Your task to perform on an android device: stop showing notifications on the lock screen Image 0: 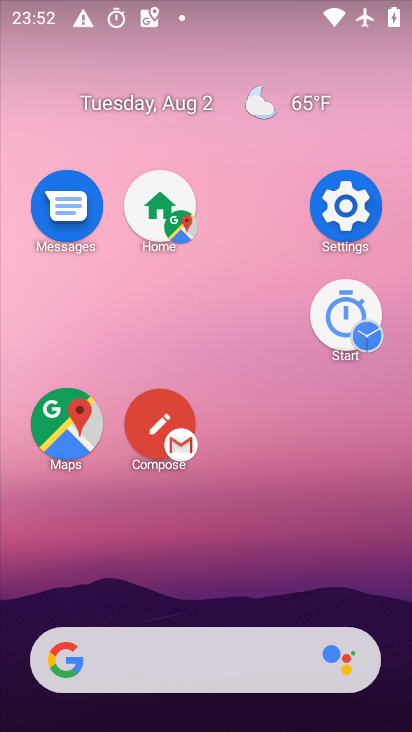
Step 0: drag from (233, 663) to (150, 189)
Your task to perform on an android device: stop showing notifications on the lock screen Image 1: 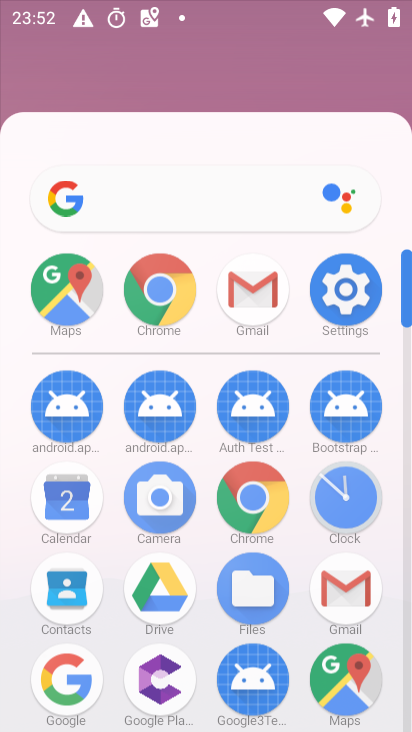
Step 1: drag from (188, 536) to (146, 123)
Your task to perform on an android device: stop showing notifications on the lock screen Image 2: 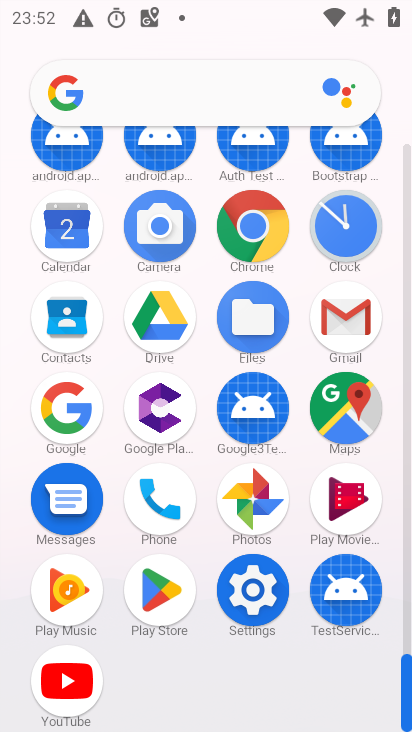
Step 2: click (258, 590)
Your task to perform on an android device: stop showing notifications on the lock screen Image 3: 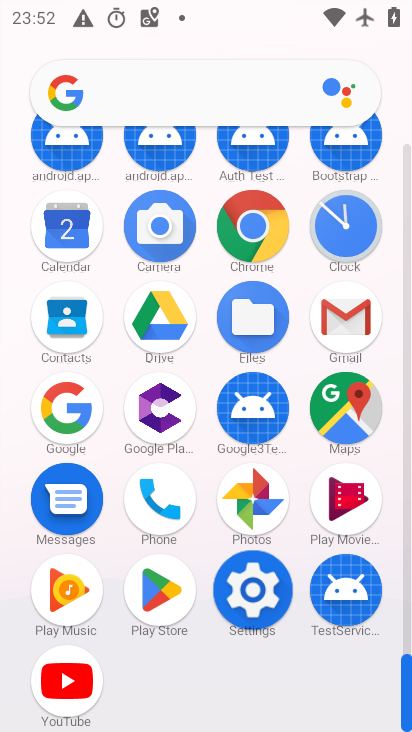
Step 3: click (257, 590)
Your task to perform on an android device: stop showing notifications on the lock screen Image 4: 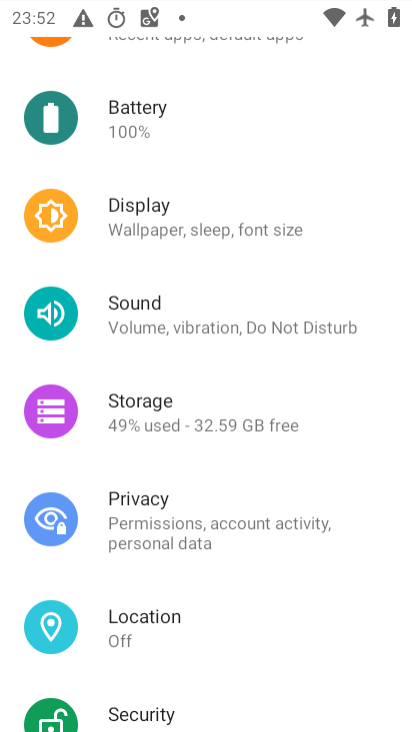
Step 4: click (256, 586)
Your task to perform on an android device: stop showing notifications on the lock screen Image 5: 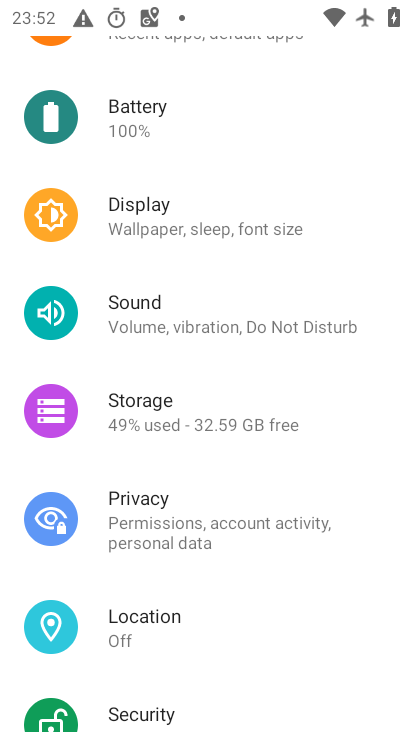
Step 5: click (256, 586)
Your task to perform on an android device: stop showing notifications on the lock screen Image 6: 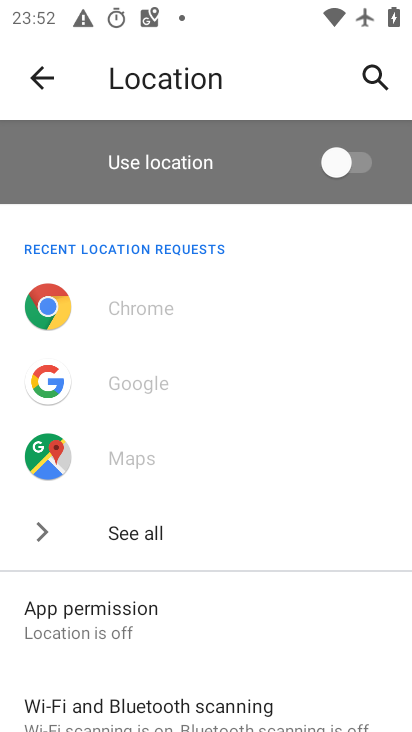
Step 6: click (41, 85)
Your task to perform on an android device: stop showing notifications on the lock screen Image 7: 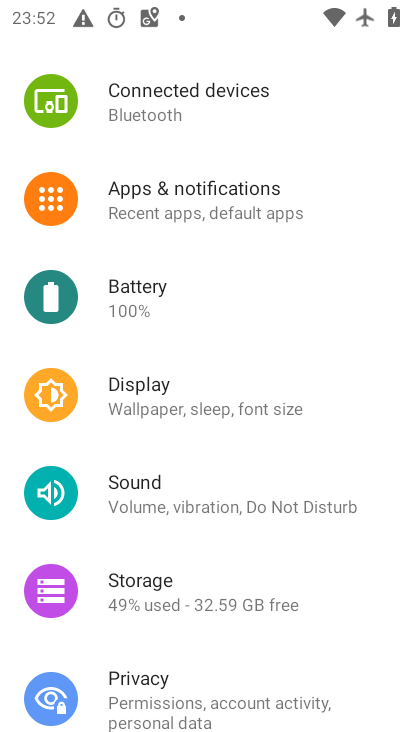
Step 7: click (172, 216)
Your task to perform on an android device: stop showing notifications on the lock screen Image 8: 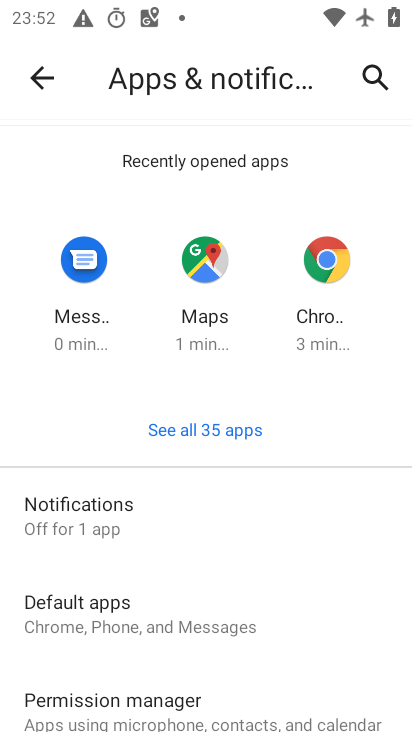
Step 8: drag from (202, 599) to (181, 303)
Your task to perform on an android device: stop showing notifications on the lock screen Image 9: 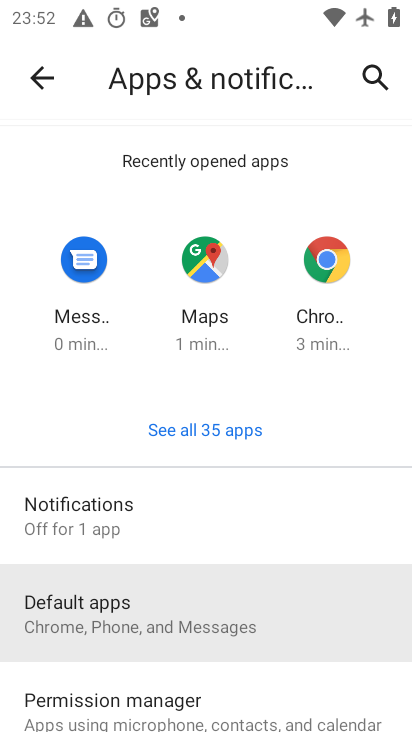
Step 9: drag from (269, 522) to (269, 323)
Your task to perform on an android device: stop showing notifications on the lock screen Image 10: 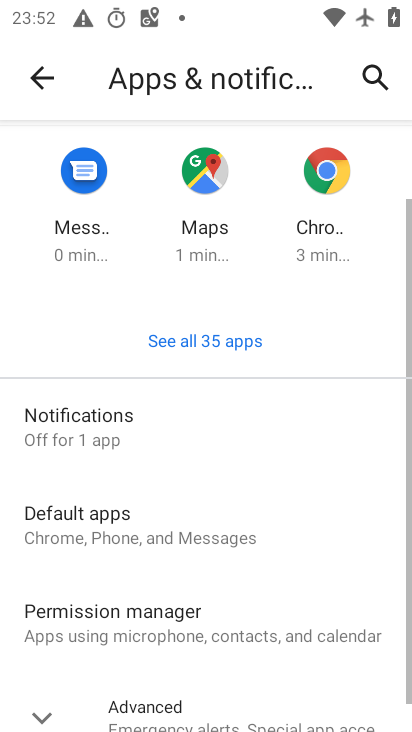
Step 10: drag from (291, 527) to (286, 326)
Your task to perform on an android device: stop showing notifications on the lock screen Image 11: 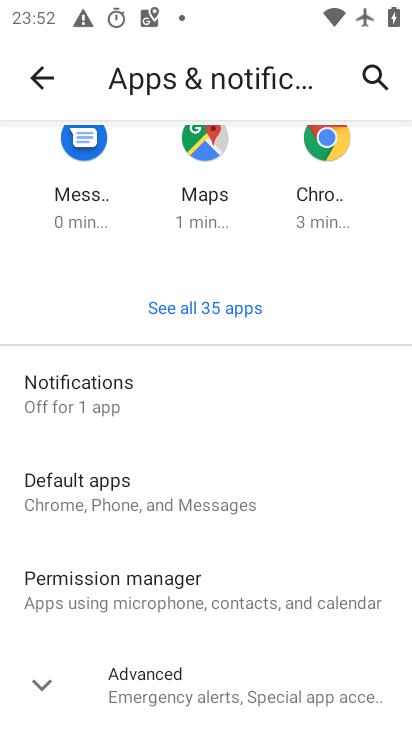
Step 11: drag from (216, 382) to (216, 697)
Your task to perform on an android device: stop showing notifications on the lock screen Image 12: 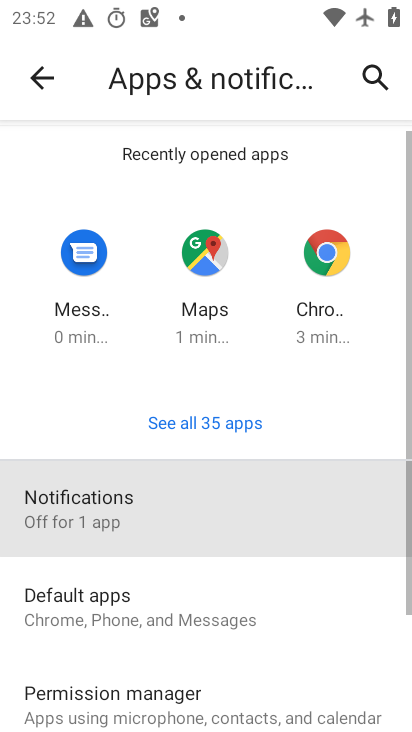
Step 12: drag from (208, 402) to (208, 663)
Your task to perform on an android device: stop showing notifications on the lock screen Image 13: 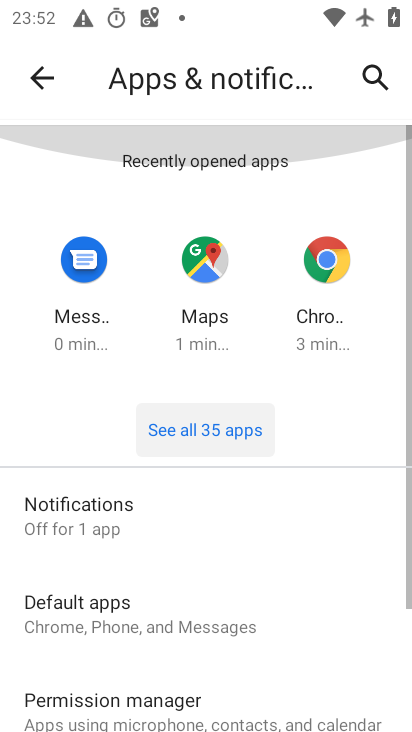
Step 13: drag from (228, 565) to (228, 422)
Your task to perform on an android device: stop showing notifications on the lock screen Image 14: 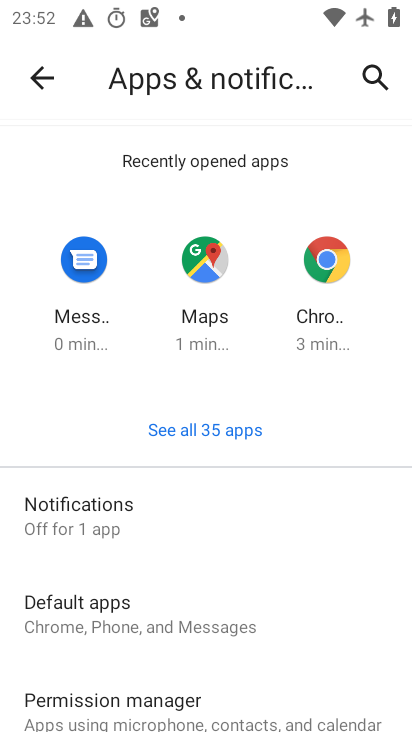
Step 14: drag from (241, 589) to (249, 282)
Your task to perform on an android device: stop showing notifications on the lock screen Image 15: 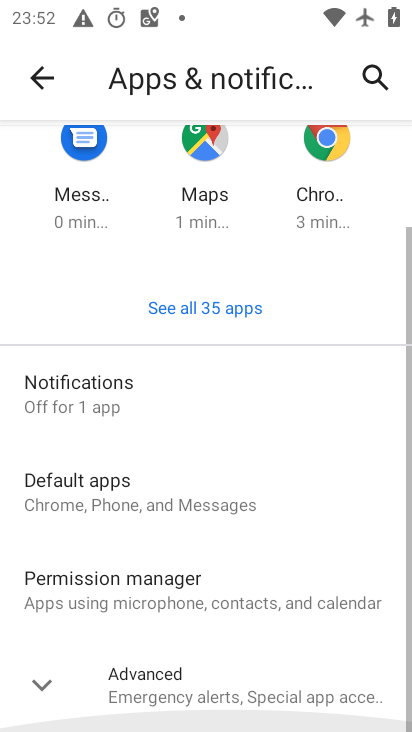
Step 15: drag from (238, 492) to (238, 341)
Your task to perform on an android device: stop showing notifications on the lock screen Image 16: 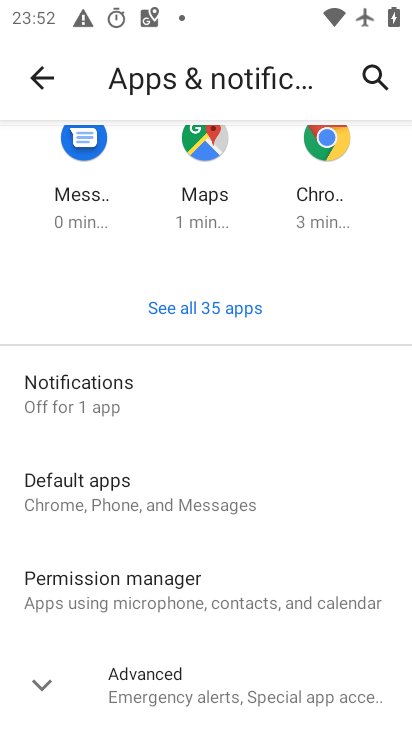
Step 16: drag from (225, 635) to (211, 345)
Your task to perform on an android device: stop showing notifications on the lock screen Image 17: 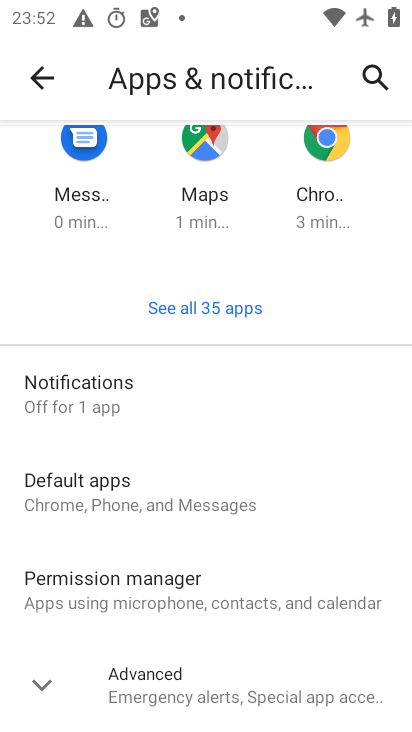
Step 17: click (89, 398)
Your task to perform on an android device: stop showing notifications on the lock screen Image 18: 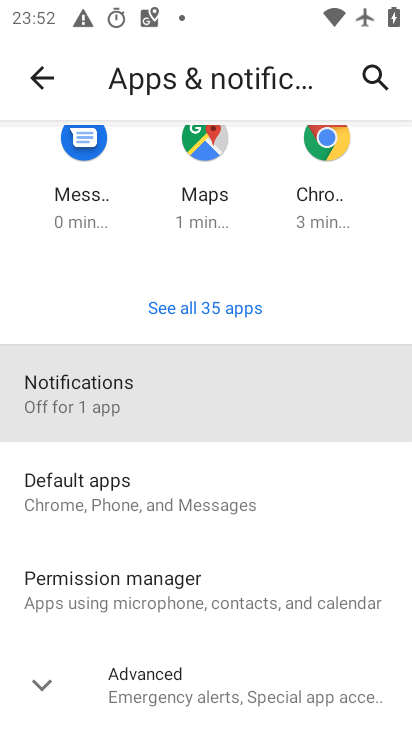
Step 18: click (89, 398)
Your task to perform on an android device: stop showing notifications on the lock screen Image 19: 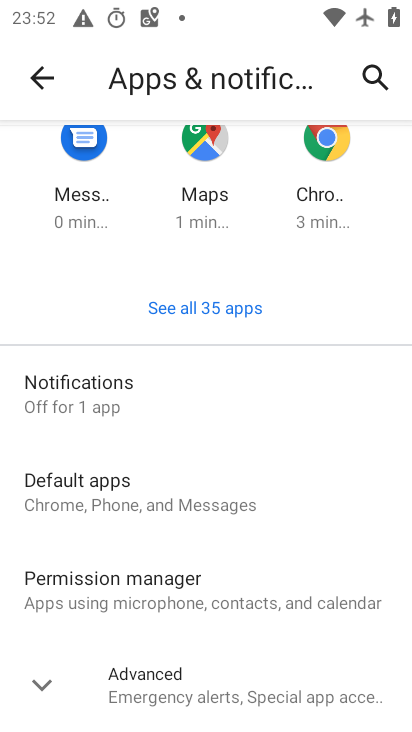
Step 19: click (88, 399)
Your task to perform on an android device: stop showing notifications on the lock screen Image 20: 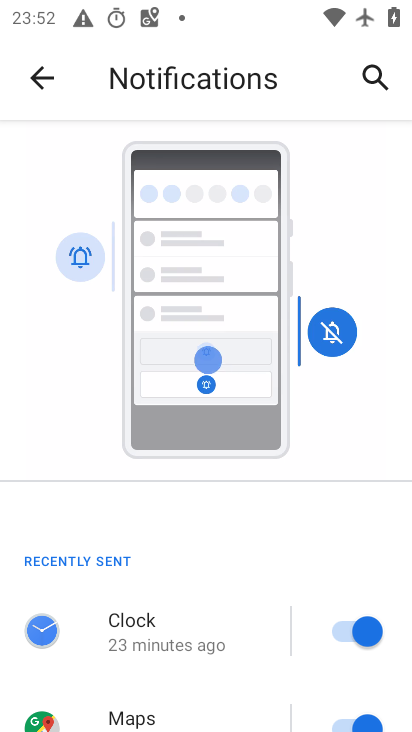
Step 20: drag from (201, 574) to (151, 329)
Your task to perform on an android device: stop showing notifications on the lock screen Image 21: 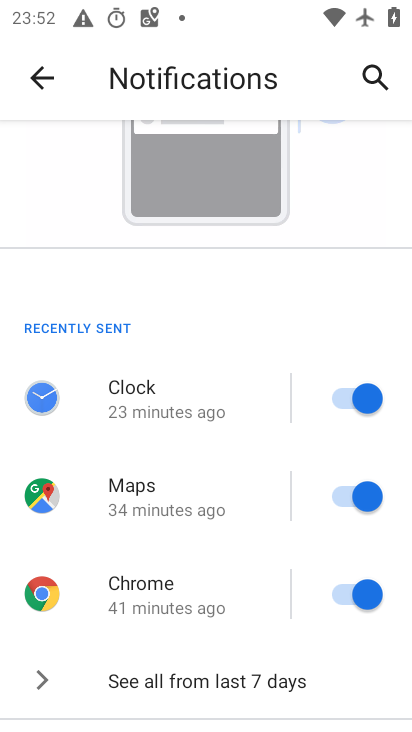
Step 21: click (157, 252)
Your task to perform on an android device: stop showing notifications on the lock screen Image 22: 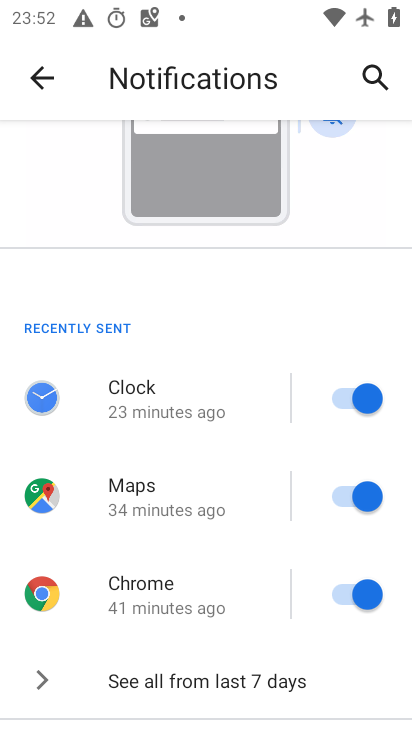
Step 22: drag from (173, 435) to (170, 274)
Your task to perform on an android device: stop showing notifications on the lock screen Image 23: 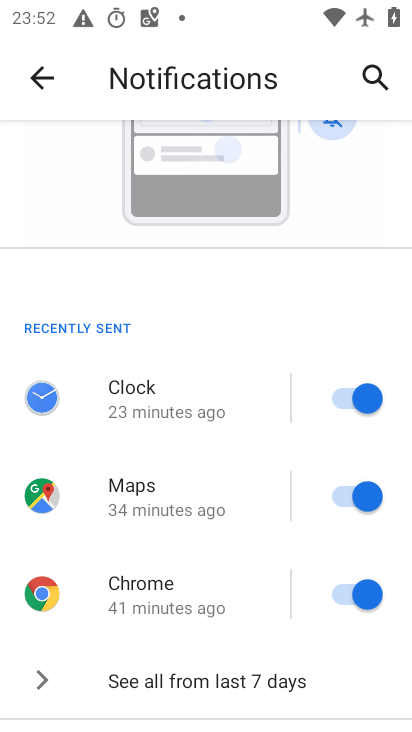
Step 23: drag from (218, 446) to (183, 254)
Your task to perform on an android device: stop showing notifications on the lock screen Image 24: 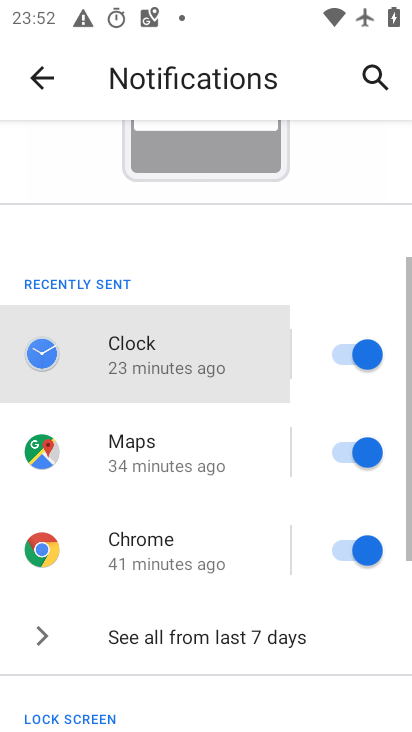
Step 24: click (224, 192)
Your task to perform on an android device: stop showing notifications on the lock screen Image 25: 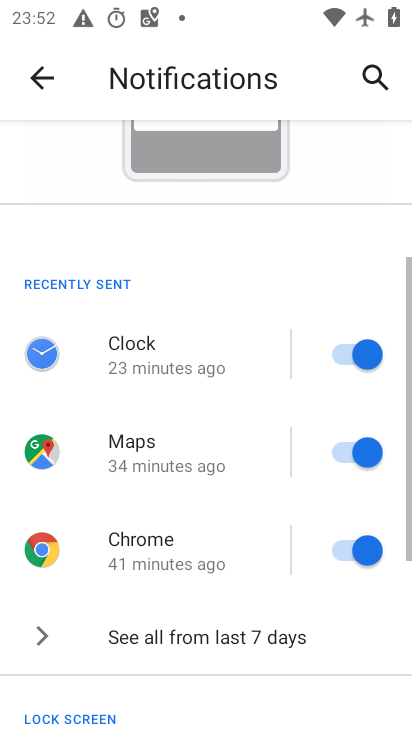
Step 25: drag from (214, 460) to (214, 294)
Your task to perform on an android device: stop showing notifications on the lock screen Image 26: 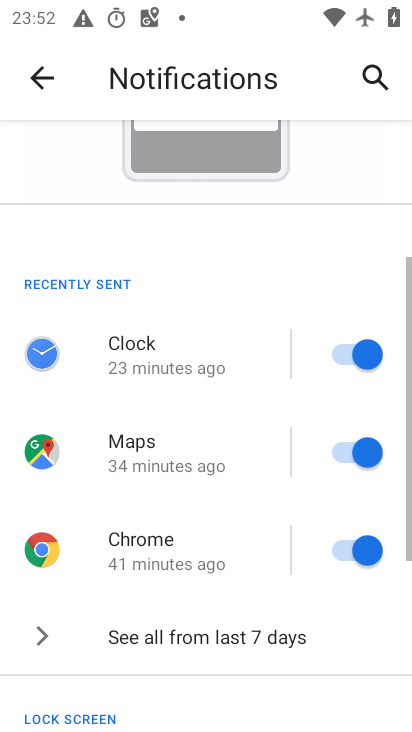
Step 26: drag from (242, 503) to (240, 237)
Your task to perform on an android device: stop showing notifications on the lock screen Image 27: 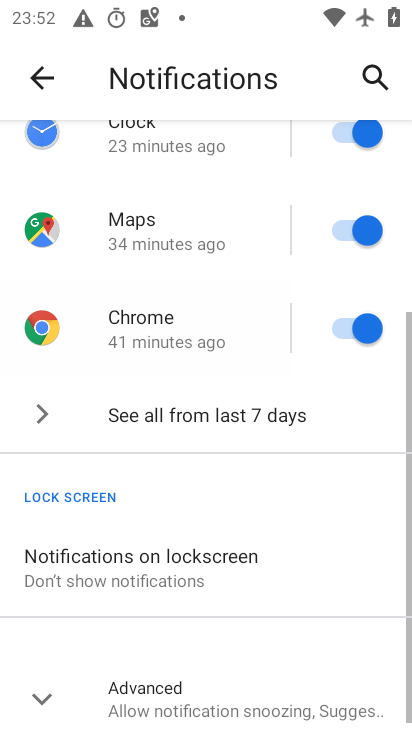
Step 27: drag from (215, 526) to (202, 319)
Your task to perform on an android device: stop showing notifications on the lock screen Image 28: 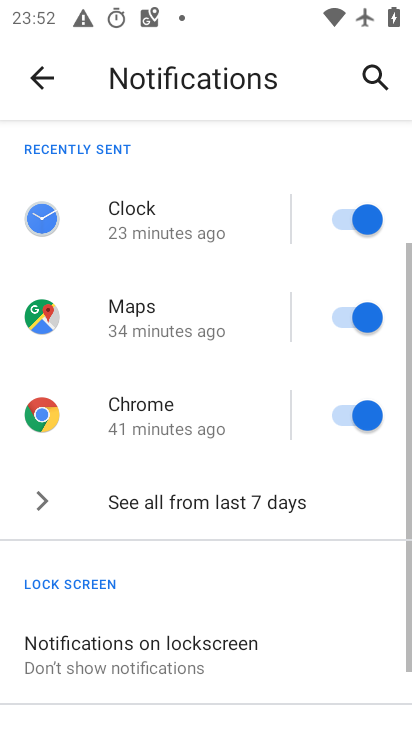
Step 28: drag from (244, 595) to (244, 401)
Your task to perform on an android device: stop showing notifications on the lock screen Image 29: 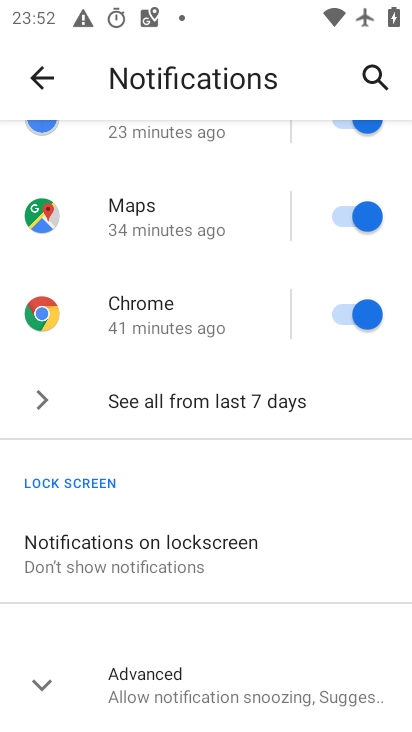
Step 29: click (130, 568)
Your task to perform on an android device: stop showing notifications on the lock screen Image 30: 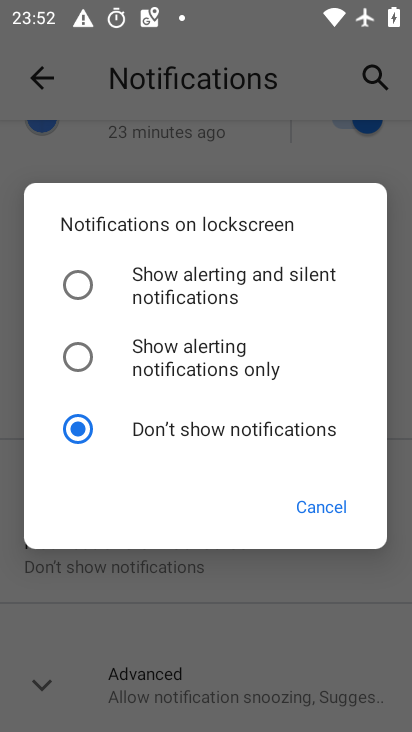
Step 30: click (68, 275)
Your task to perform on an android device: stop showing notifications on the lock screen Image 31: 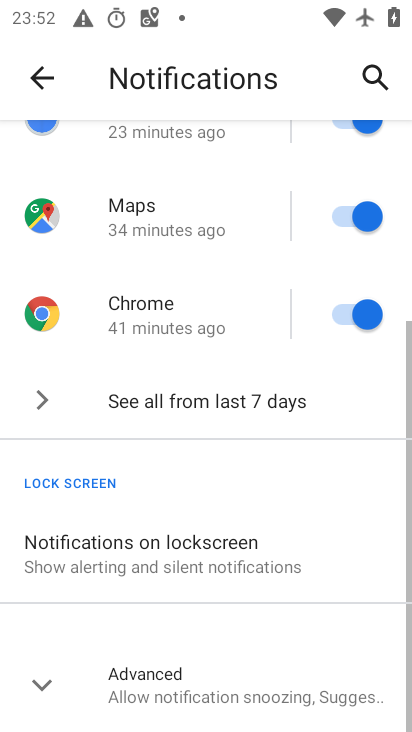
Step 31: click (147, 559)
Your task to perform on an android device: stop showing notifications on the lock screen Image 32: 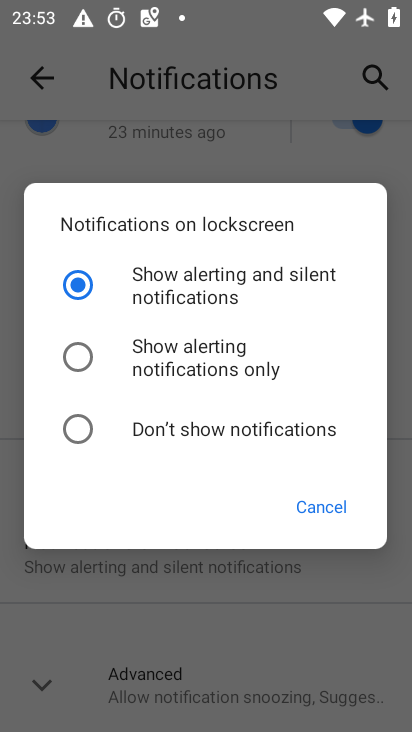
Step 32: click (78, 431)
Your task to perform on an android device: stop showing notifications on the lock screen Image 33: 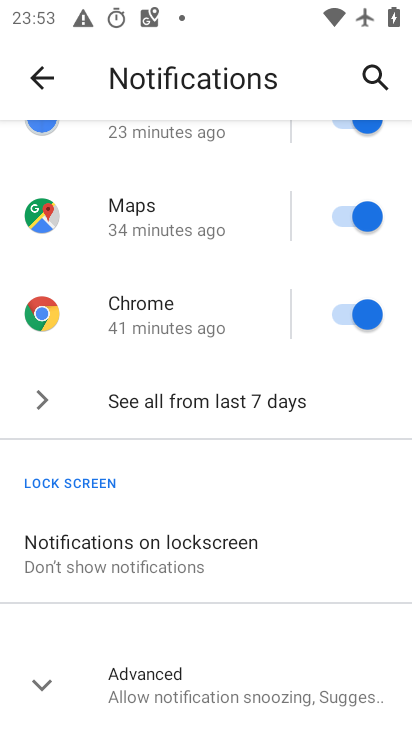
Step 33: task complete